Your task to perform on an android device: add a contact in the contacts app Image 0: 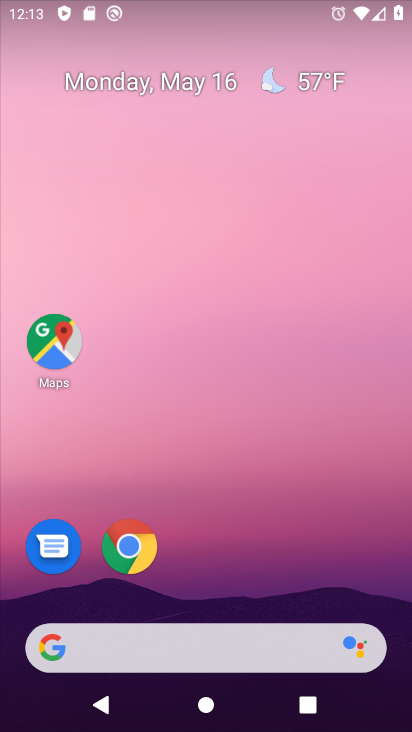
Step 0: drag from (233, 580) to (229, 126)
Your task to perform on an android device: add a contact in the contacts app Image 1: 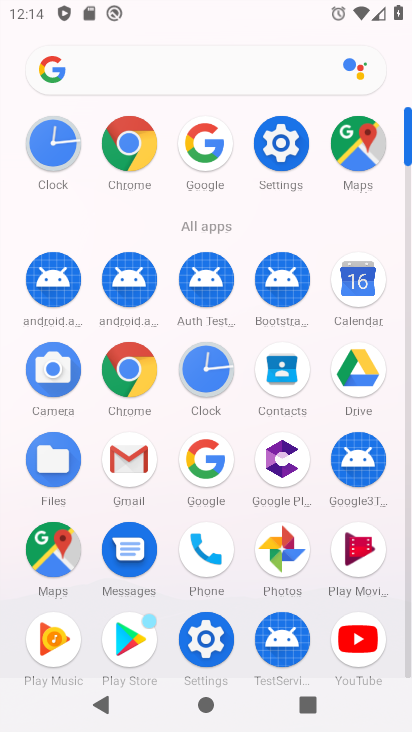
Step 1: click (291, 382)
Your task to perform on an android device: add a contact in the contacts app Image 2: 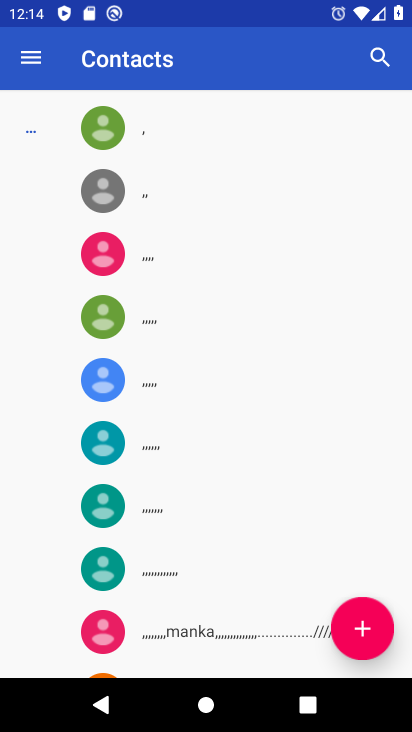
Step 2: click (367, 630)
Your task to perform on an android device: add a contact in the contacts app Image 3: 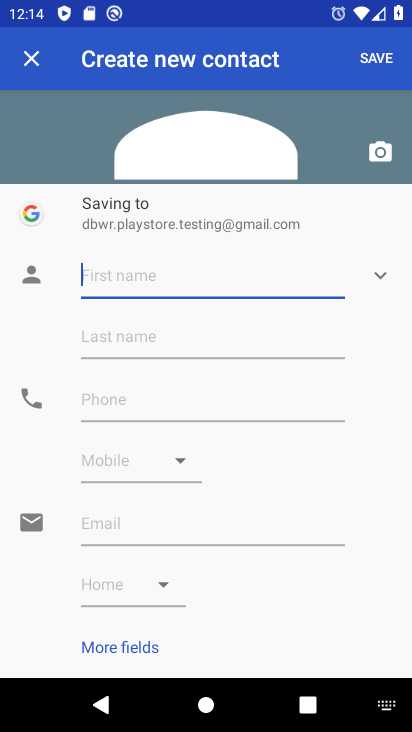
Step 3: type "palak"
Your task to perform on an android device: add a contact in the contacts app Image 4: 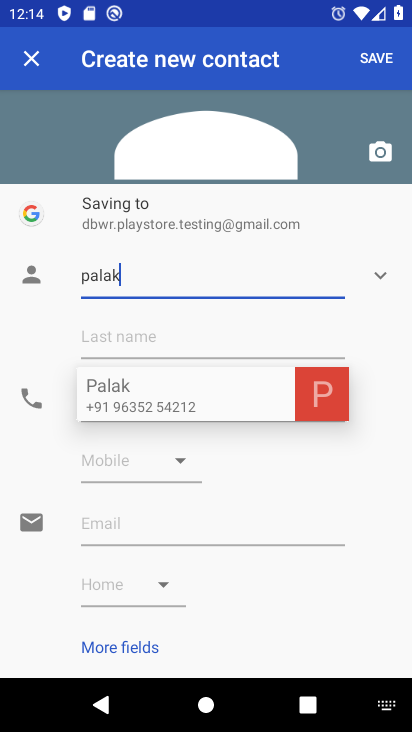
Step 4: type "1"
Your task to perform on an android device: add a contact in the contacts app Image 5: 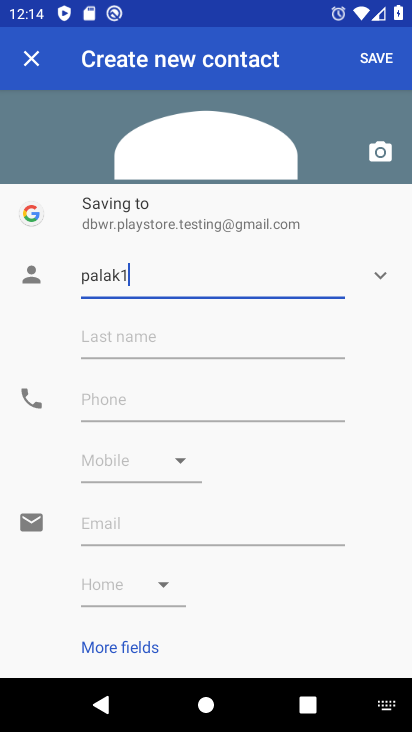
Step 5: click (179, 404)
Your task to perform on an android device: add a contact in the contacts app Image 6: 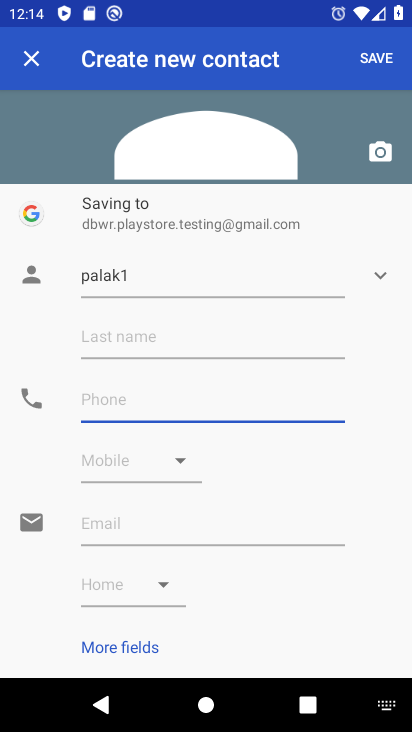
Step 6: type "654763211"
Your task to perform on an android device: add a contact in the contacts app Image 7: 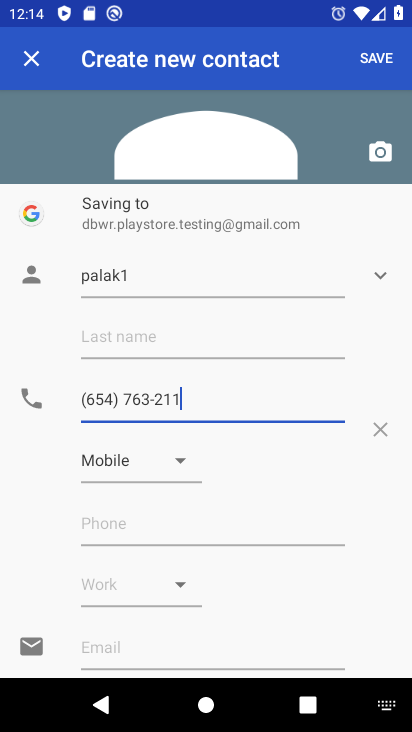
Step 7: type "2"
Your task to perform on an android device: add a contact in the contacts app Image 8: 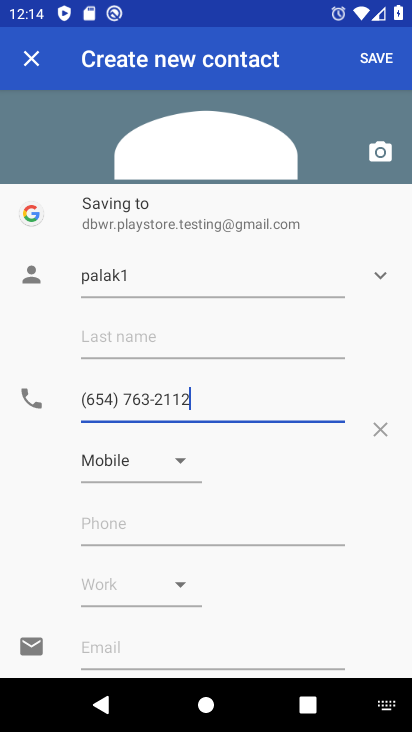
Step 8: click (390, 61)
Your task to perform on an android device: add a contact in the contacts app Image 9: 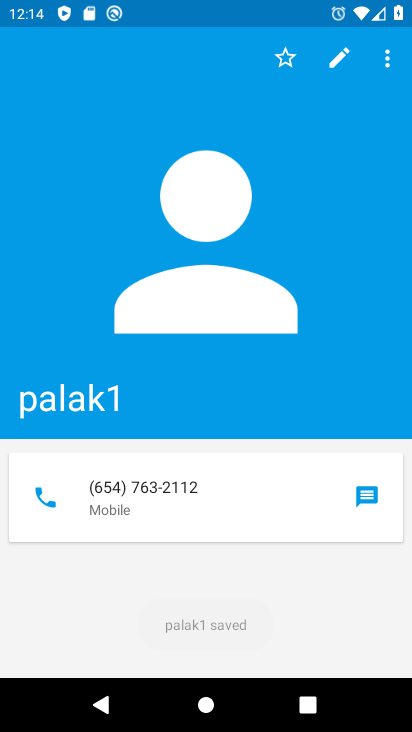
Step 9: task complete